Your task to perform on an android device: turn notification dots on Image 0: 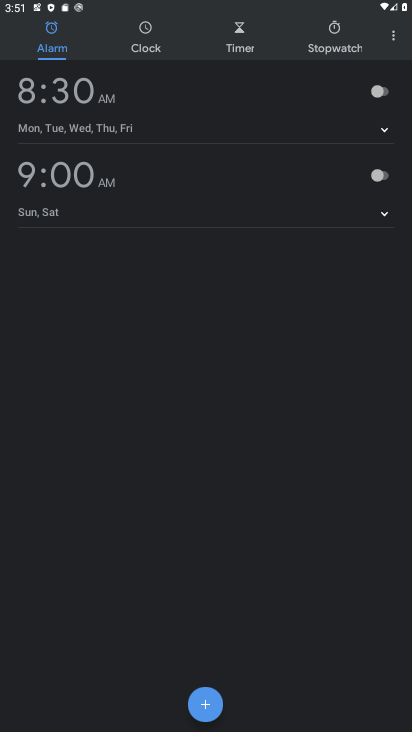
Step 0: press home button
Your task to perform on an android device: turn notification dots on Image 1: 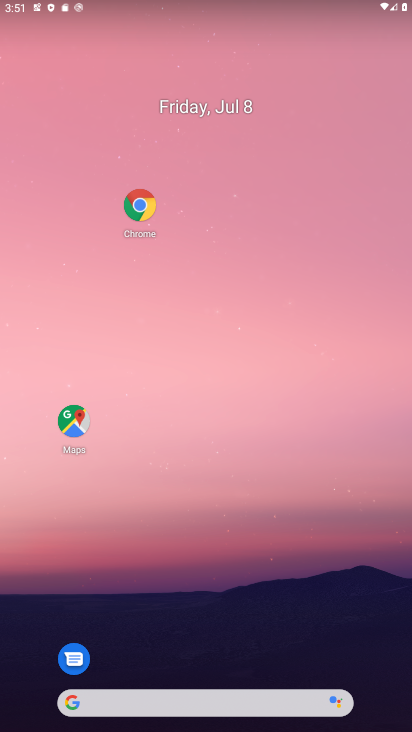
Step 1: drag from (201, 626) to (216, 142)
Your task to perform on an android device: turn notification dots on Image 2: 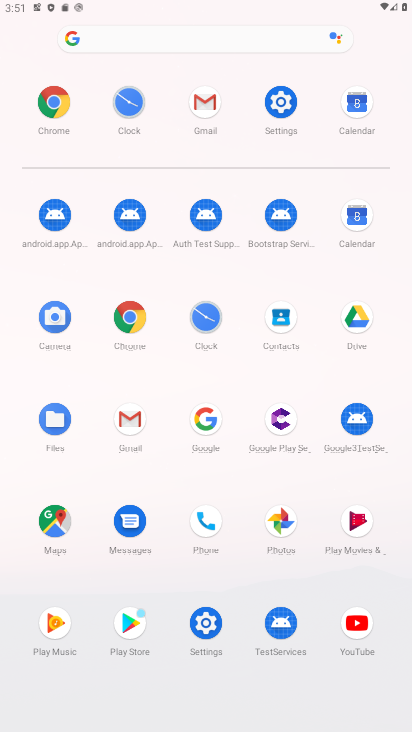
Step 2: click (262, 100)
Your task to perform on an android device: turn notification dots on Image 3: 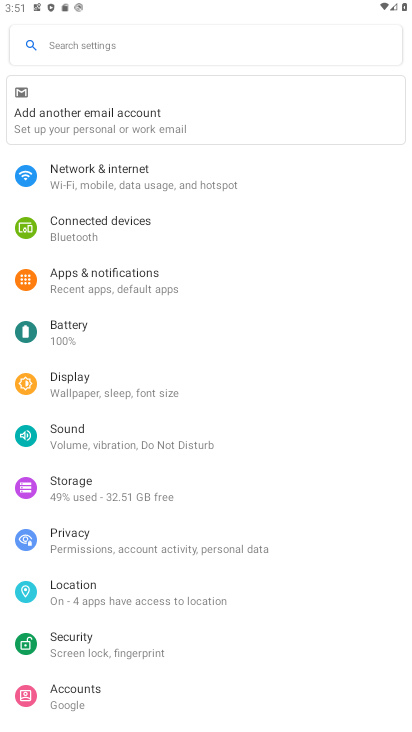
Step 3: click (161, 275)
Your task to perform on an android device: turn notification dots on Image 4: 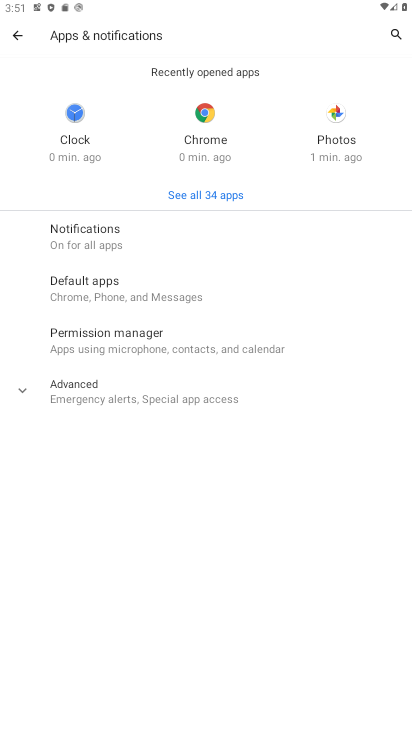
Step 4: click (136, 234)
Your task to perform on an android device: turn notification dots on Image 5: 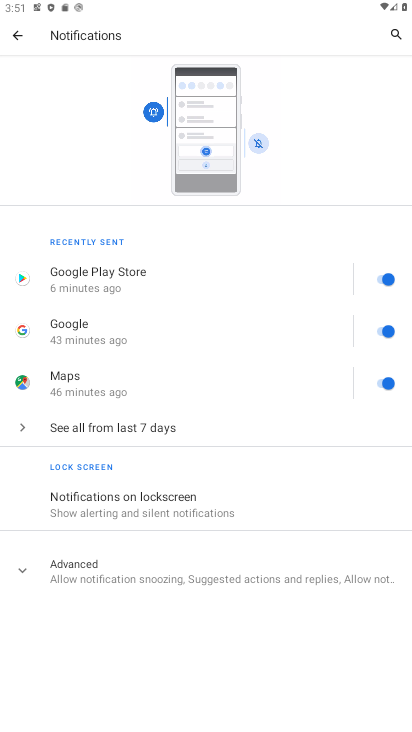
Step 5: click (166, 576)
Your task to perform on an android device: turn notification dots on Image 6: 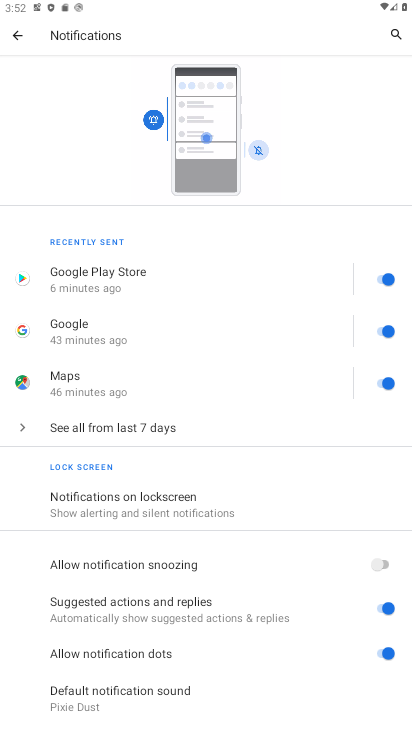
Step 6: task complete